Your task to perform on an android device: Google the capital of Chile Image 0: 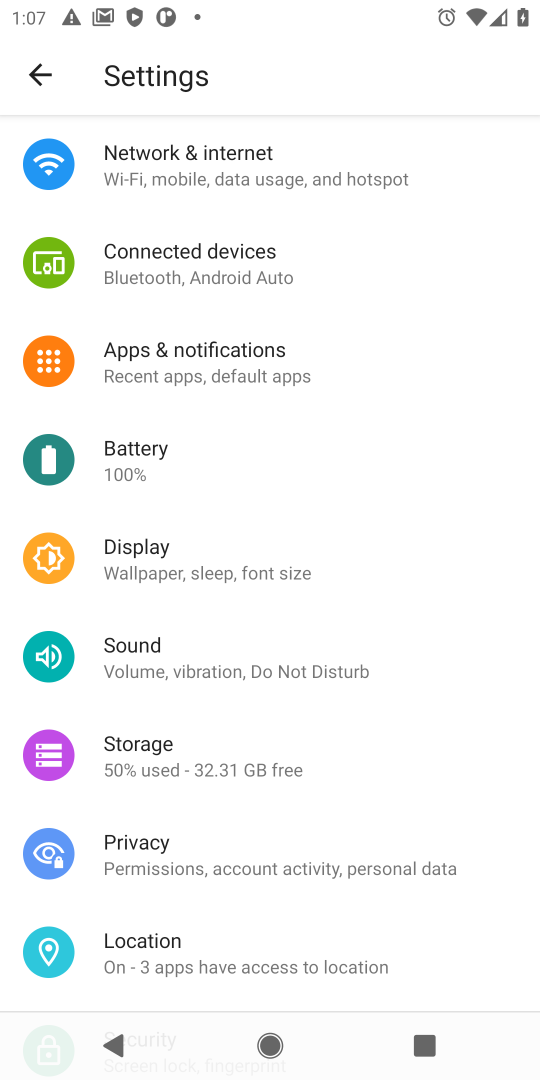
Step 0: press home button
Your task to perform on an android device: Google the capital of Chile Image 1: 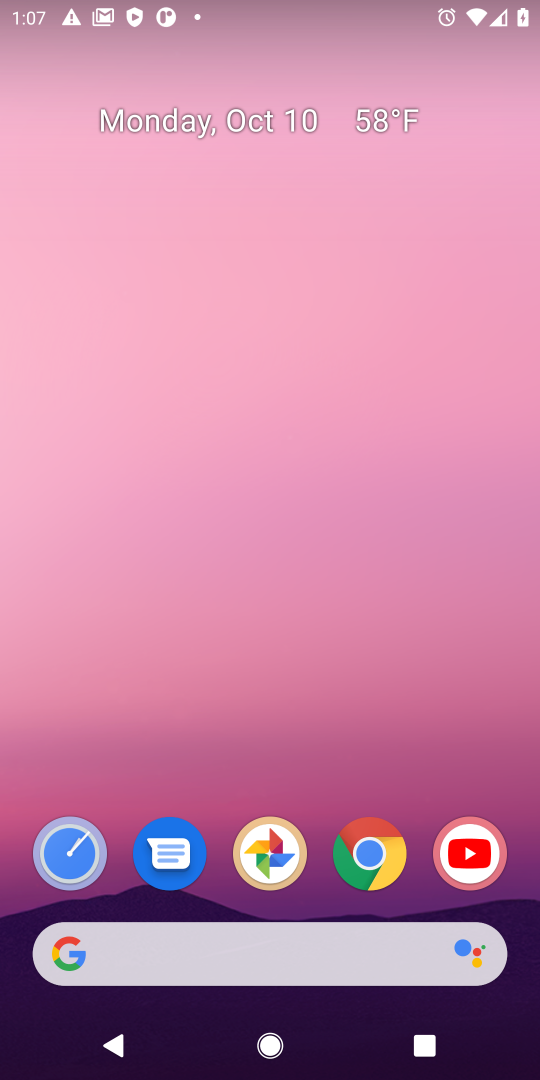
Step 1: click (392, 870)
Your task to perform on an android device: Google the capital of Chile Image 2: 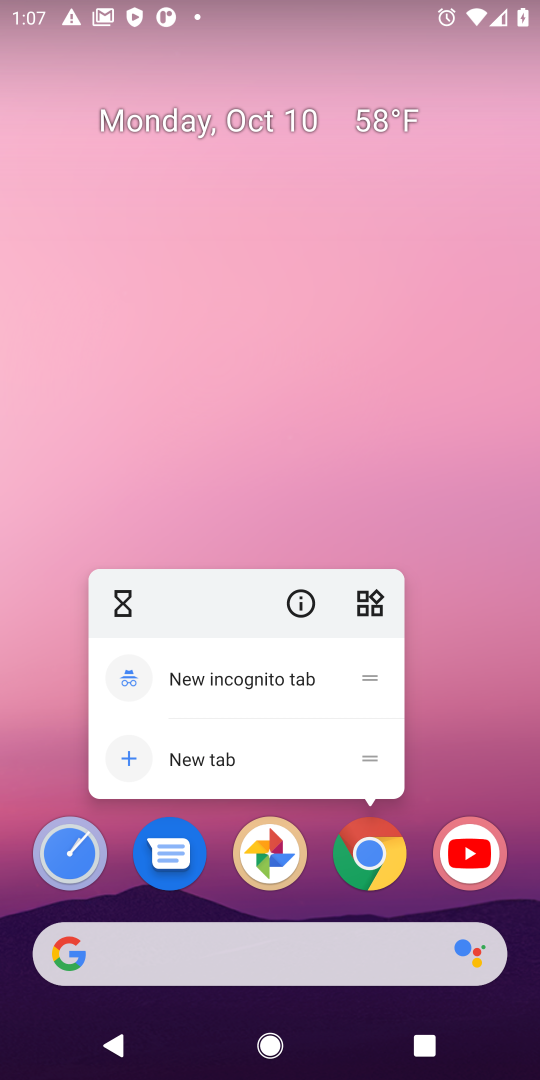
Step 2: click (392, 870)
Your task to perform on an android device: Google the capital of Chile Image 3: 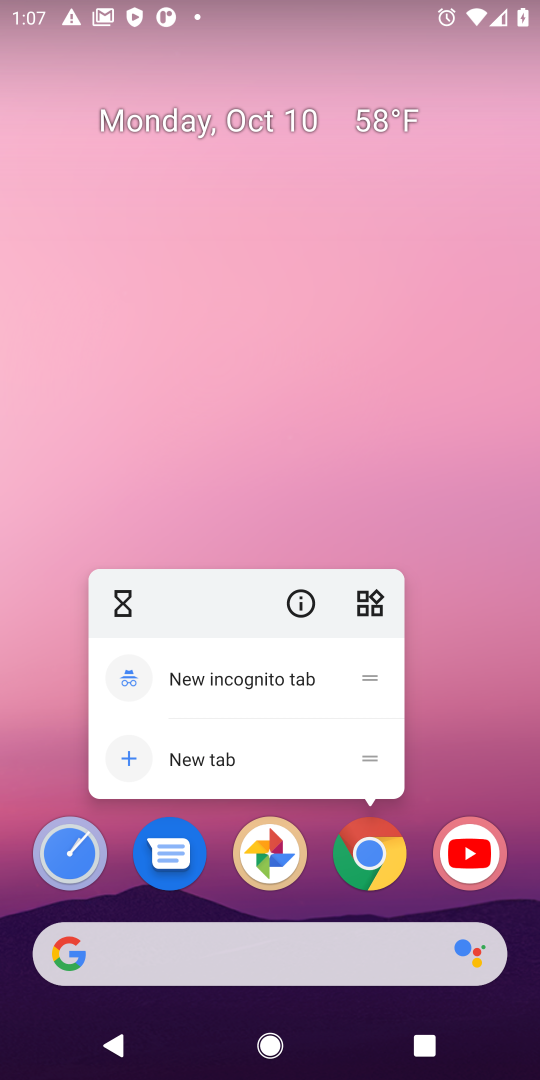
Step 3: click (392, 870)
Your task to perform on an android device: Google the capital of Chile Image 4: 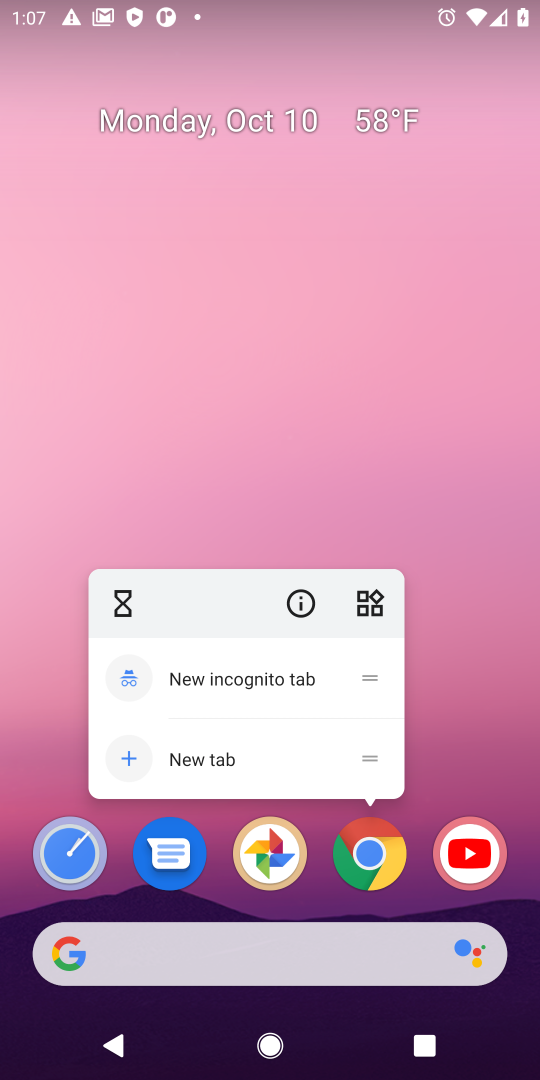
Step 4: click (392, 870)
Your task to perform on an android device: Google the capital of Chile Image 5: 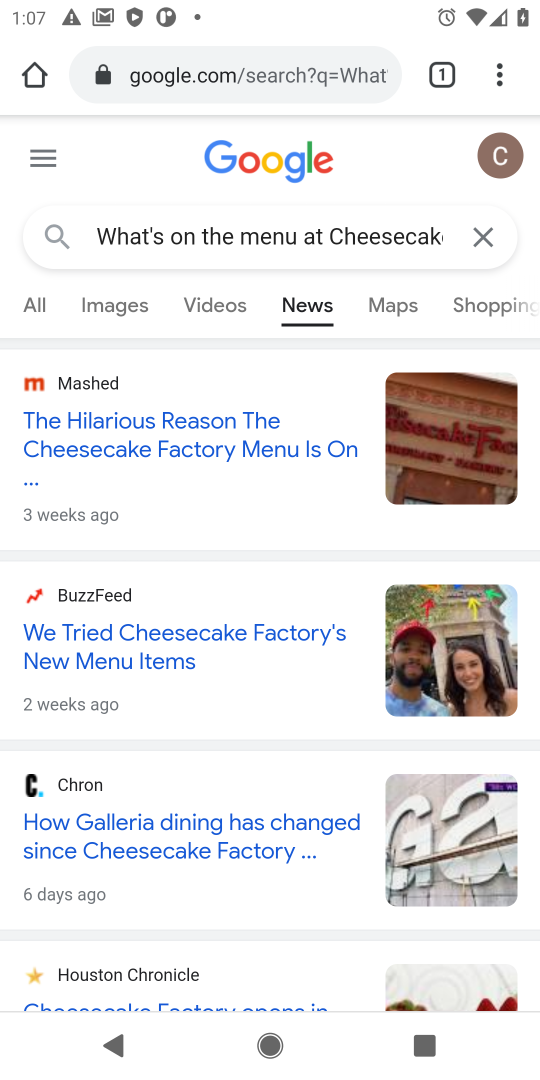
Step 5: click (481, 241)
Your task to perform on an android device: Google the capital of Chile Image 6: 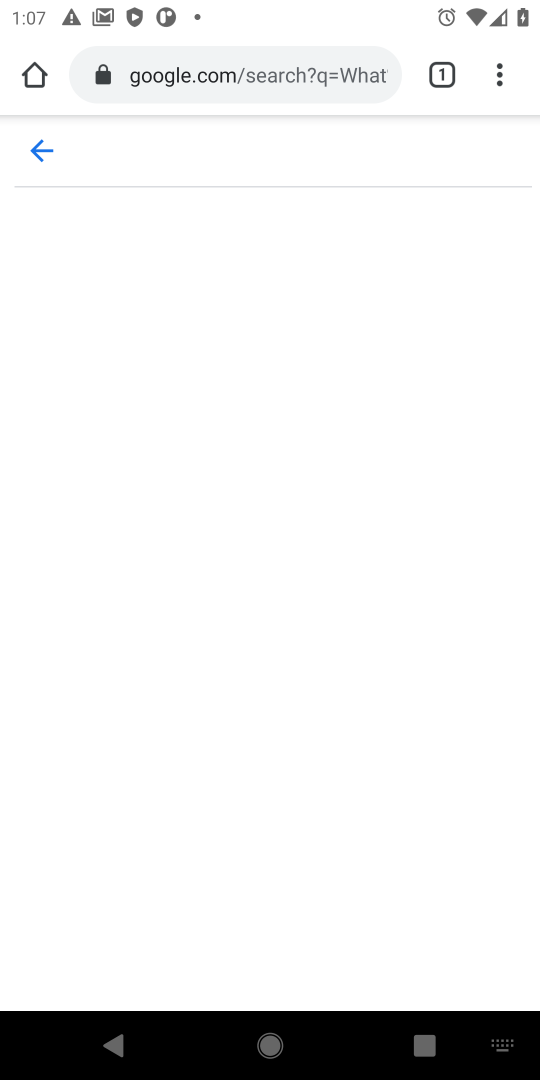
Step 6: click (263, 180)
Your task to perform on an android device: Google the capital of Chile Image 7: 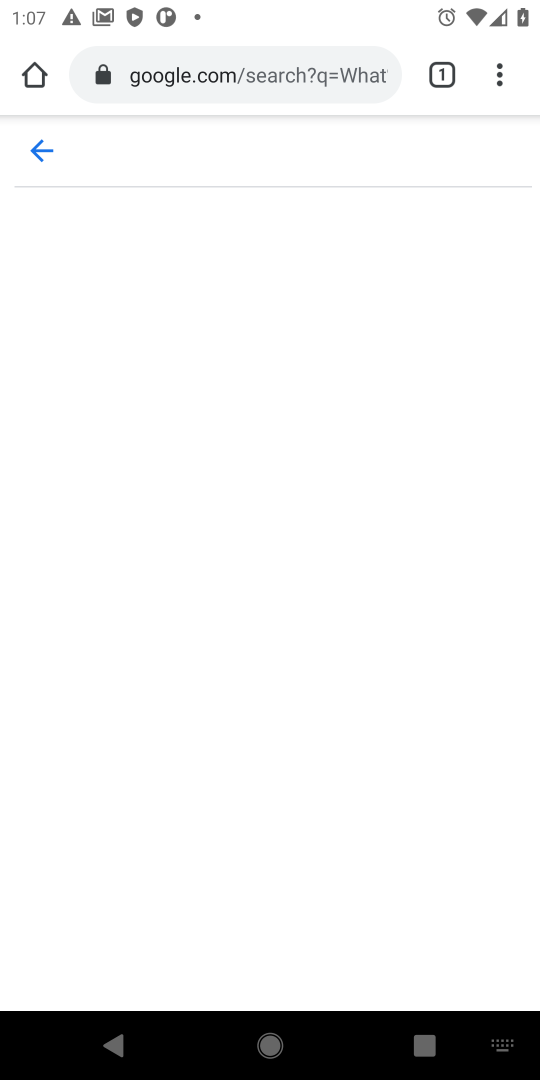
Step 7: type "capital of Chile"
Your task to perform on an android device: Google the capital of Chile Image 8: 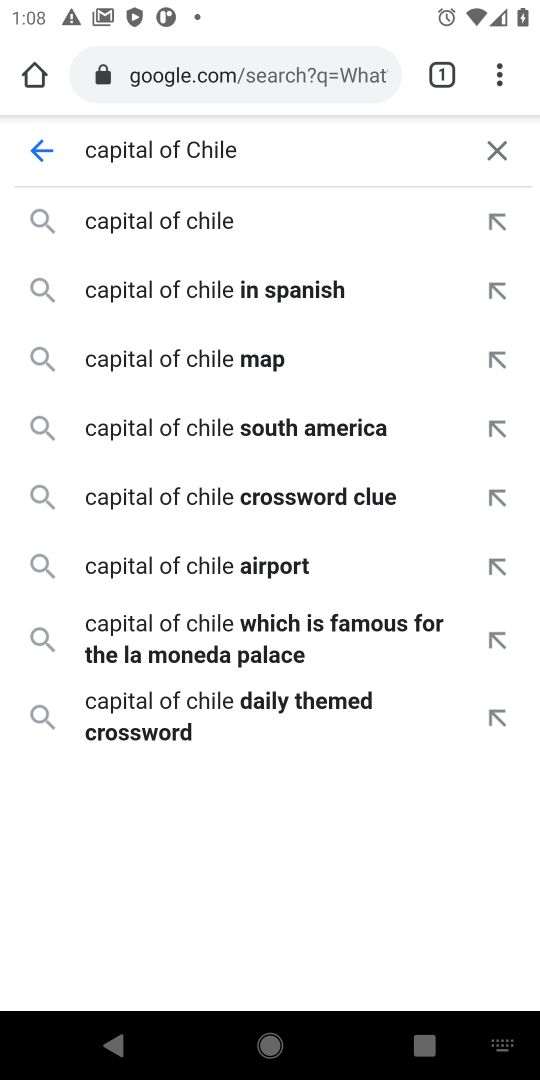
Step 8: click (251, 219)
Your task to perform on an android device: Google the capital of Chile Image 9: 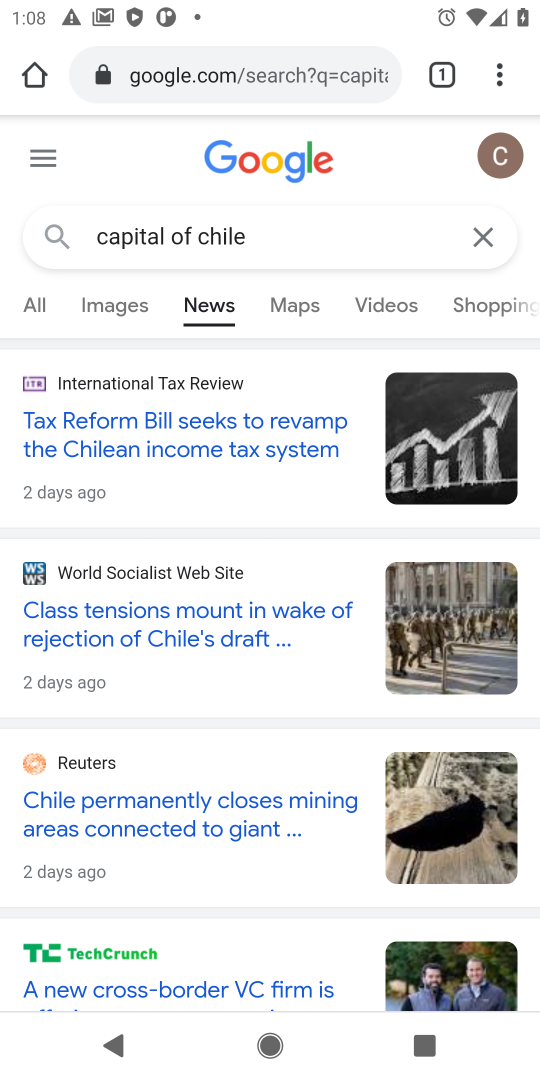
Step 9: click (14, 304)
Your task to perform on an android device: Google the capital of Chile Image 10: 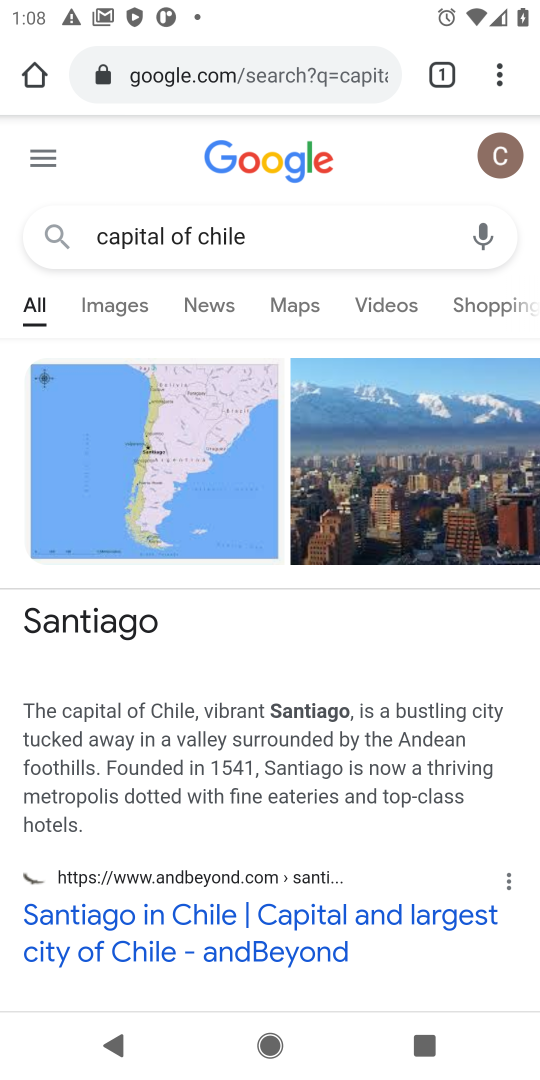
Step 10: task complete